Your task to perform on an android device: turn pop-ups on in chrome Image 0: 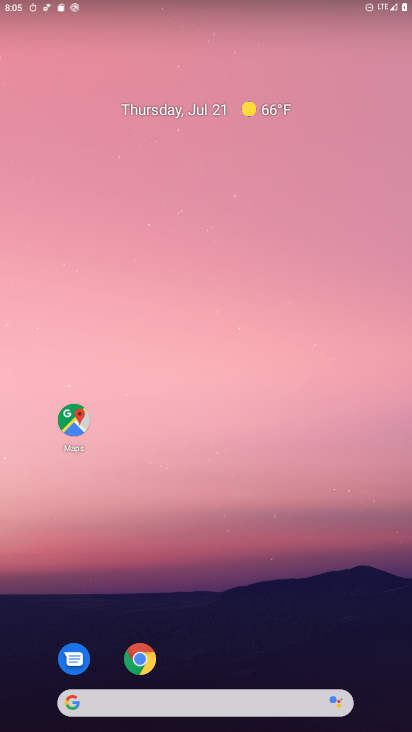
Step 0: drag from (181, 665) to (258, 126)
Your task to perform on an android device: turn pop-ups on in chrome Image 1: 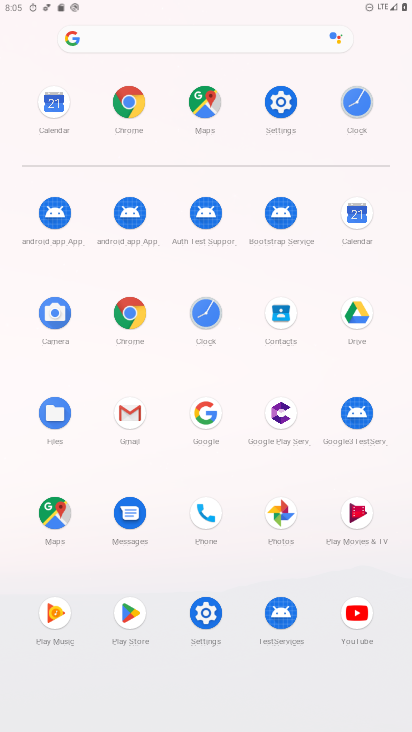
Step 1: click (125, 102)
Your task to perform on an android device: turn pop-ups on in chrome Image 2: 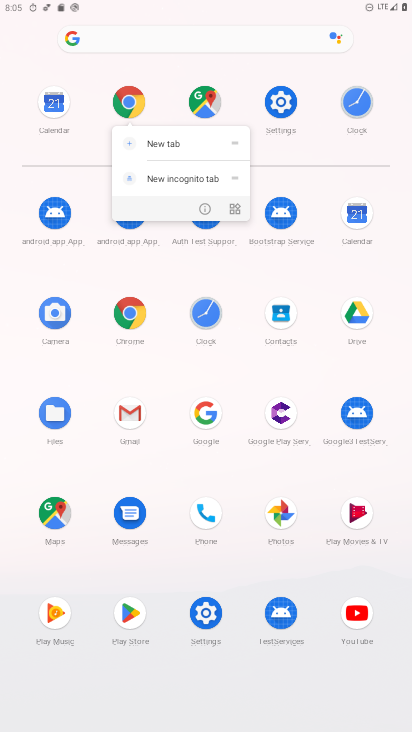
Step 2: click (204, 209)
Your task to perform on an android device: turn pop-ups on in chrome Image 3: 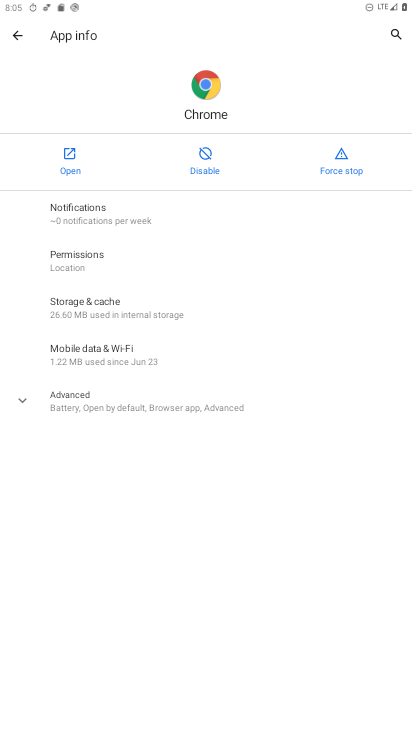
Step 3: click (60, 156)
Your task to perform on an android device: turn pop-ups on in chrome Image 4: 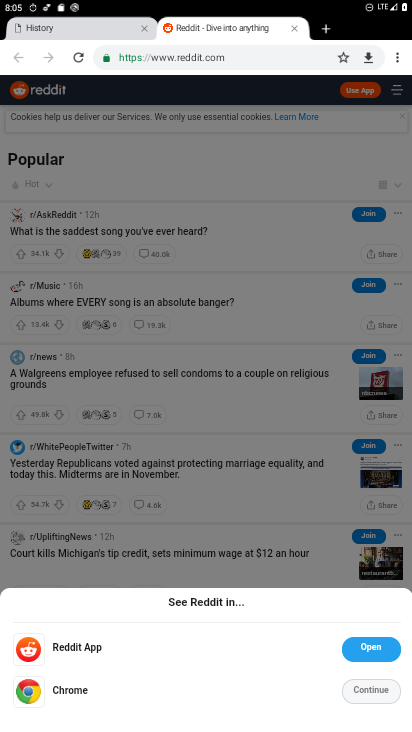
Step 4: drag from (399, 60) to (298, 385)
Your task to perform on an android device: turn pop-ups on in chrome Image 5: 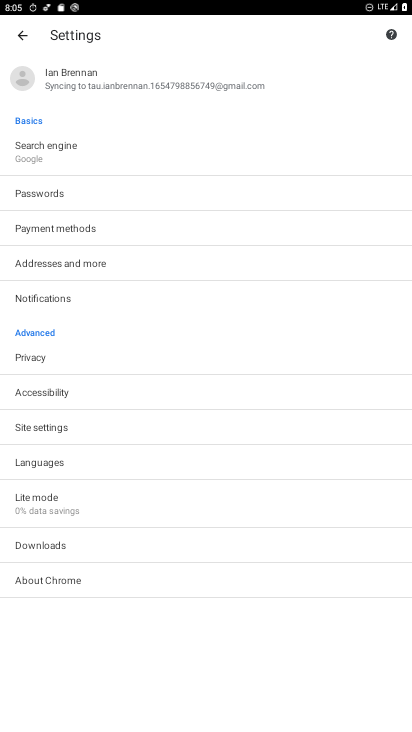
Step 5: click (62, 428)
Your task to perform on an android device: turn pop-ups on in chrome Image 6: 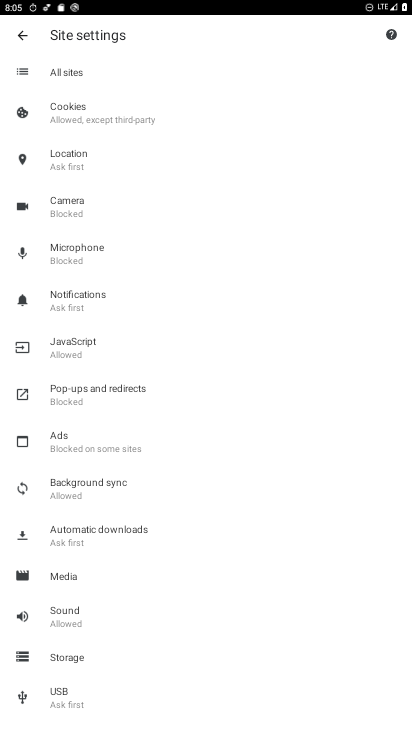
Step 6: click (110, 403)
Your task to perform on an android device: turn pop-ups on in chrome Image 7: 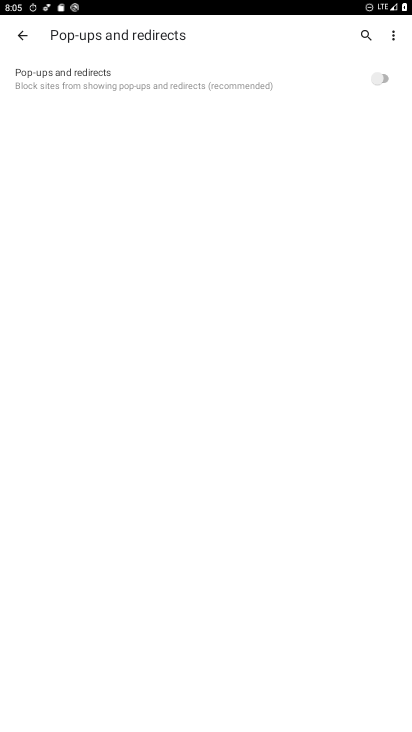
Step 7: click (275, 82)
Your task to perform on an android device: turn pop-ups on in chrome Image 8: 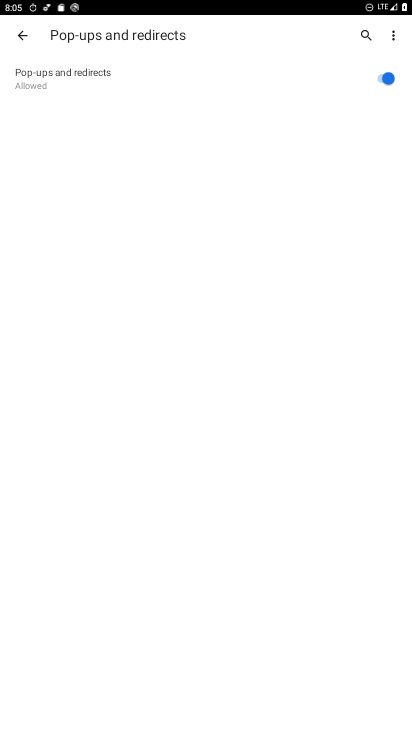
Step 8: task complete